Your task to perform on an android device: Empty the shopping cart on newegg. Image 0: 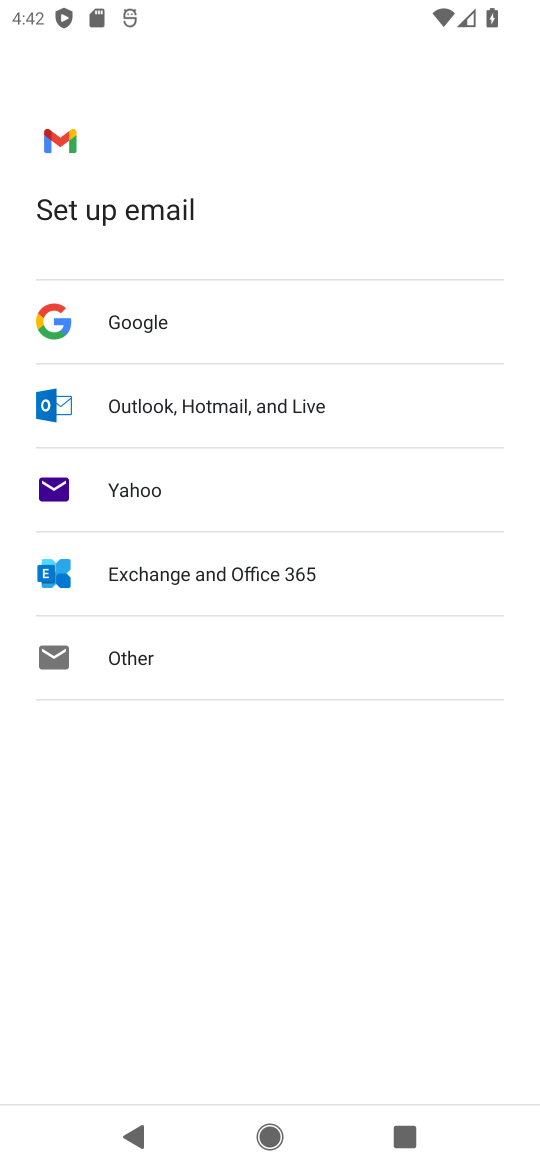
Step 0: press home button
Your task to perform on an android device: Empty the shopping cart on newegg. Image 1: 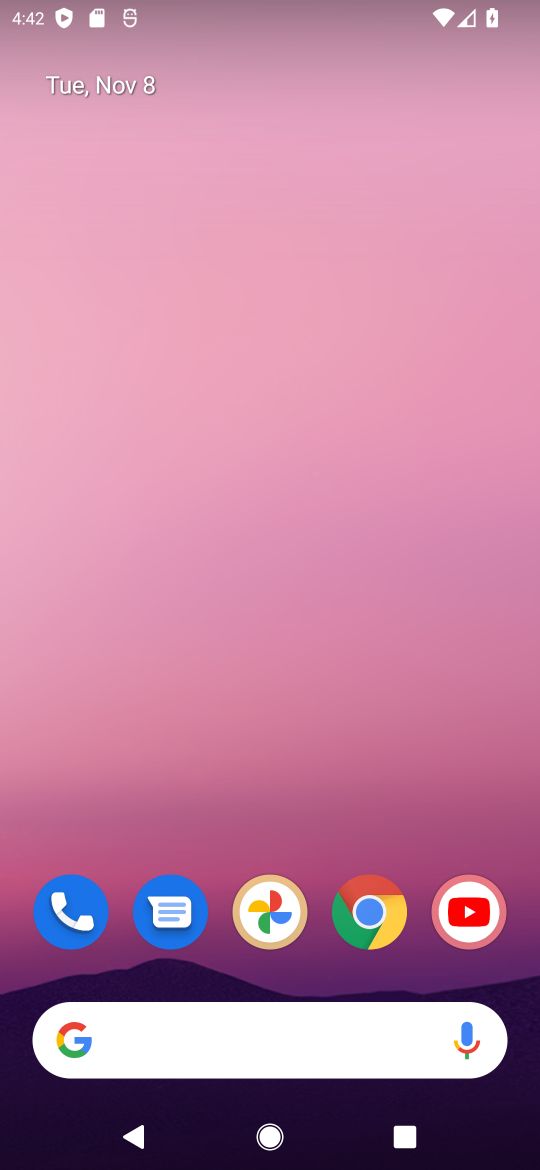
Step 1: click (378, 915)
Your task to perform on an android device: Empty the shopping cart on newegg. Image 2: 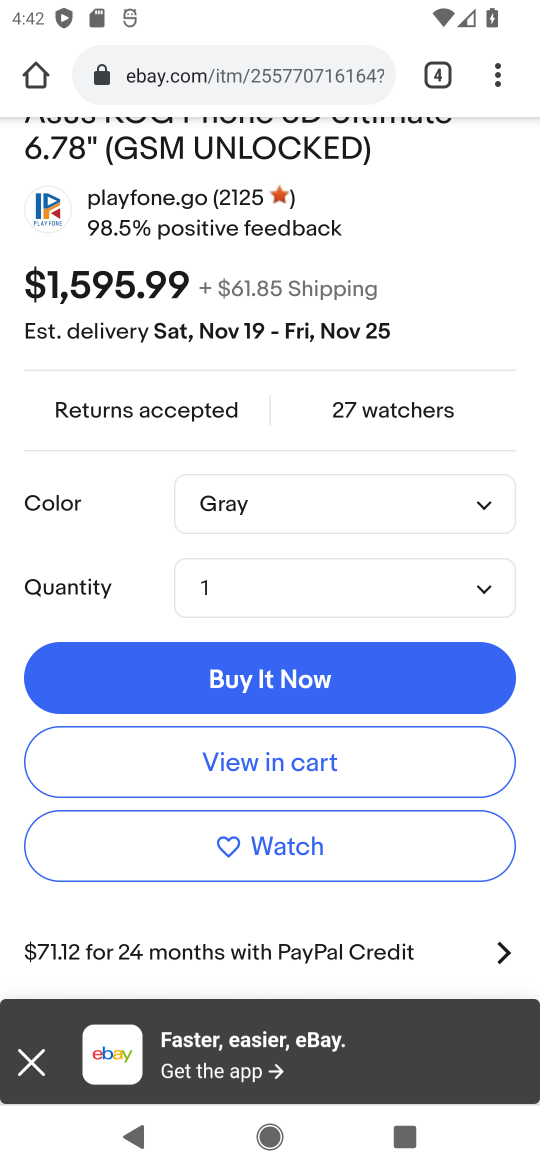
Step 2: click (447, 79)
Your task to perform on an android device: Empty the shopping cart on newegg. Image 3: 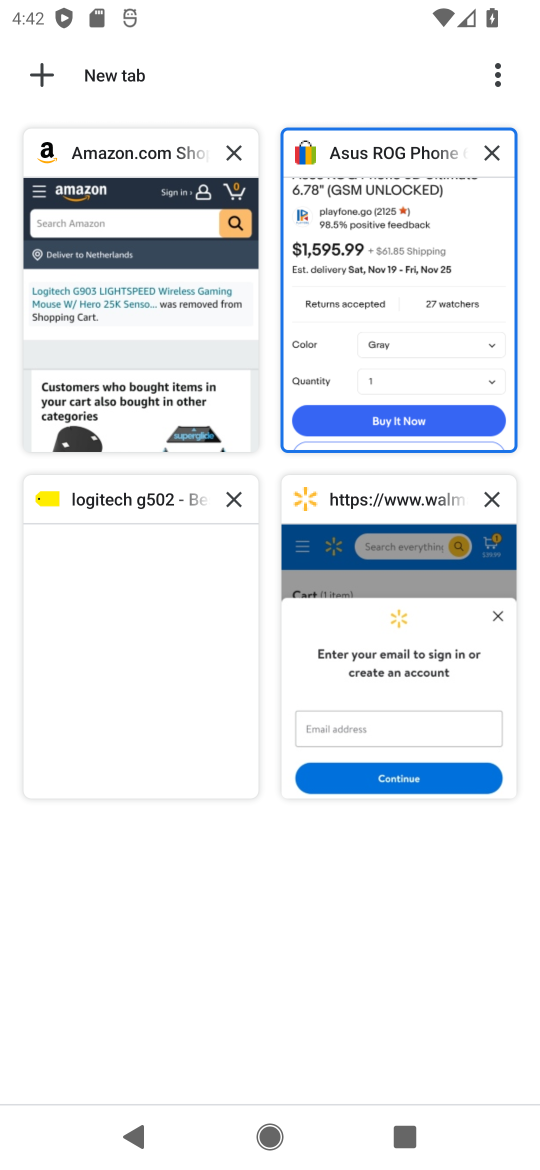
Step 3: click (31, 67)
Your task to perform on an android device: Empty the shopping cart on newegg. Image 4: 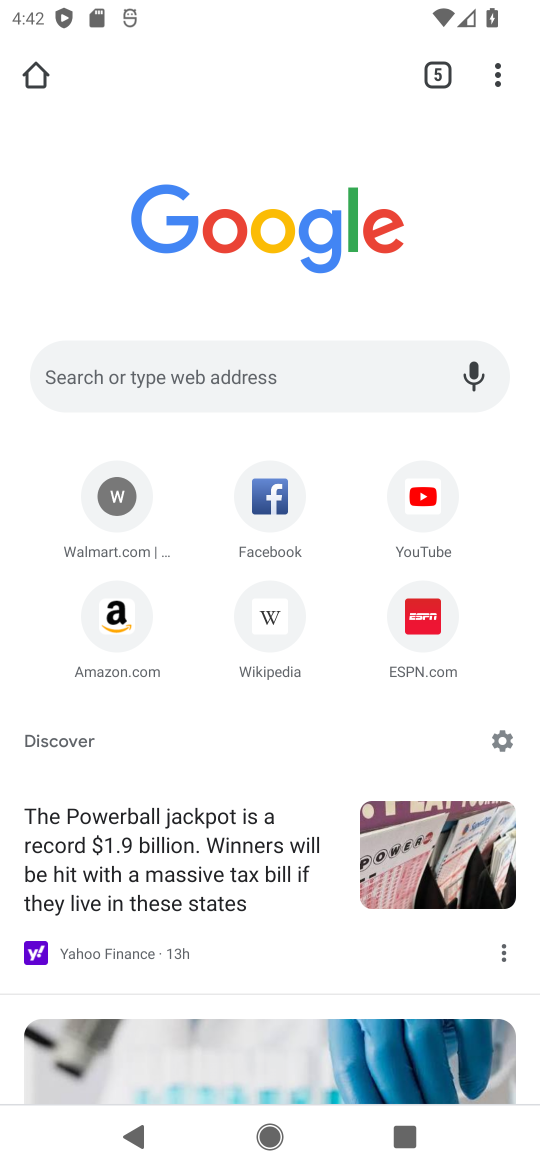
Step 4: click (239, 381)
Your task to perform on an android device: Empty the shopping cart on newegg. Image 5: 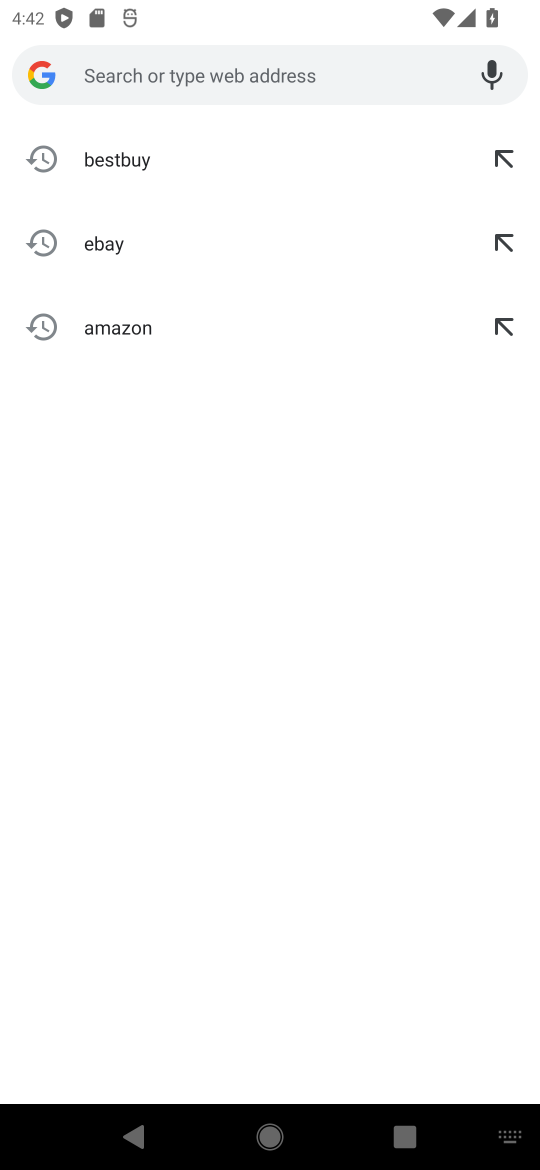
Step 5: type "newegg"
Your task to perform on an android device: Empty the shopping cart on newegg. Image 6: 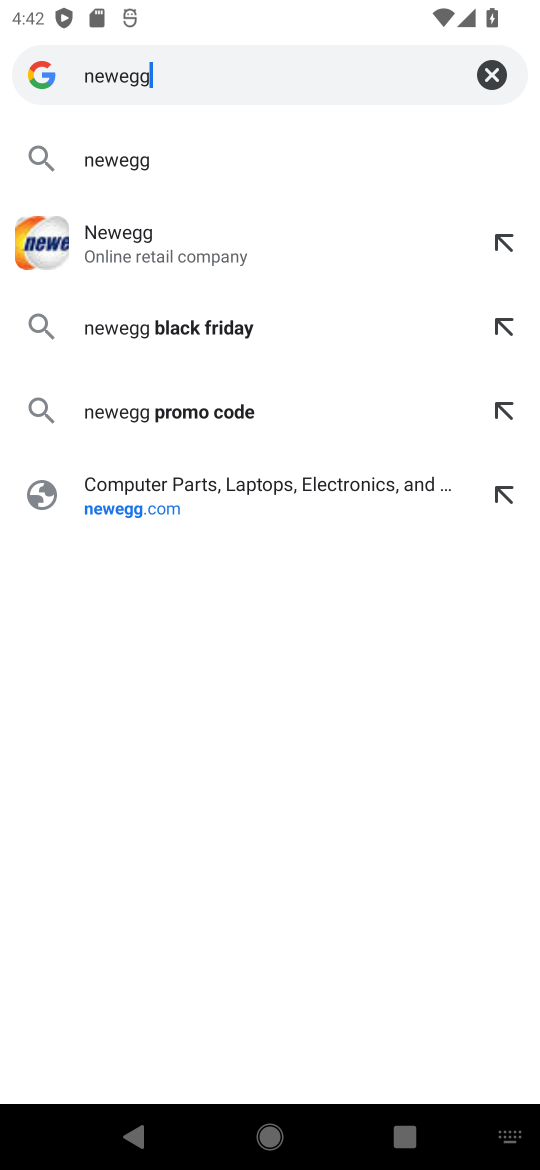
Step 6: click (145, 156)
Your task to perform on an android device: Empty the shopping cart on newegg. Image 7: 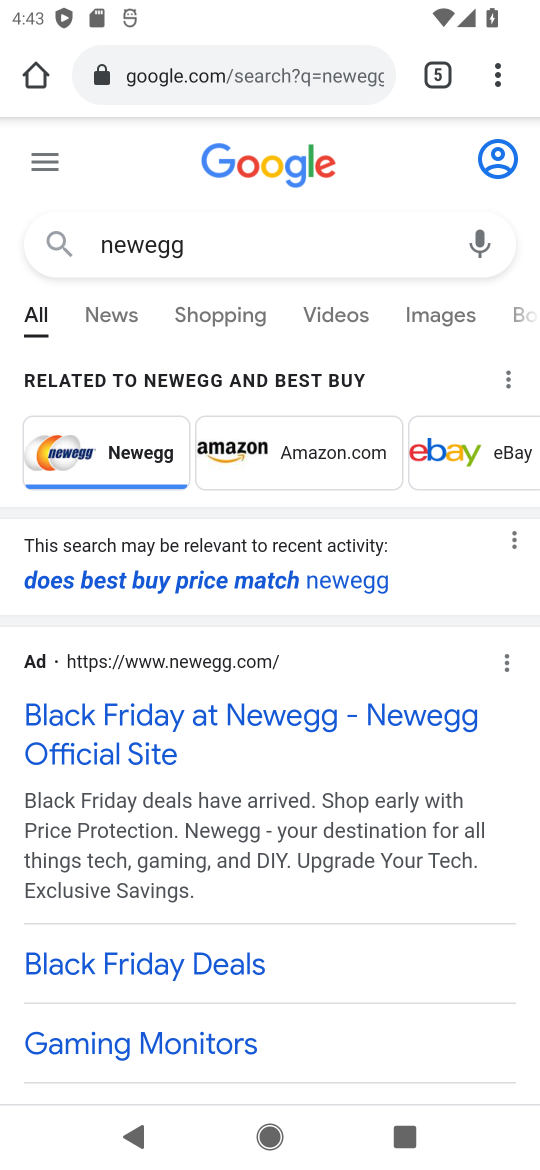
Step 7: drag from (349, 1074) to (522, 544)
Your task to perform on an android device: Empty the shopping cart on newegg. Image 8: 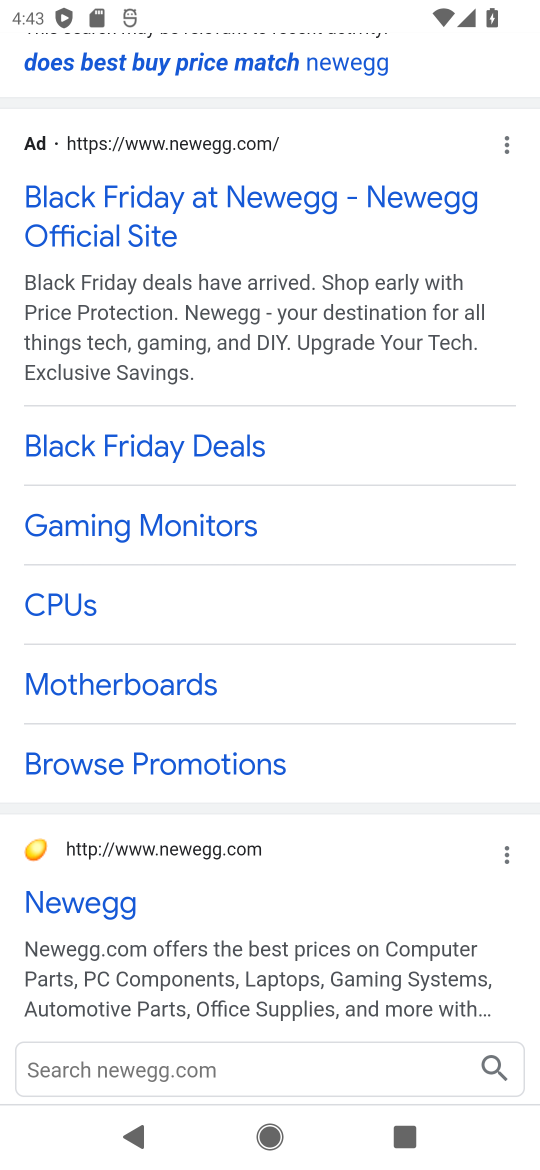
Step 8: click (113, 908)
Your task to perform on an android device: Empty the shopping cart on newegg. Image 9: 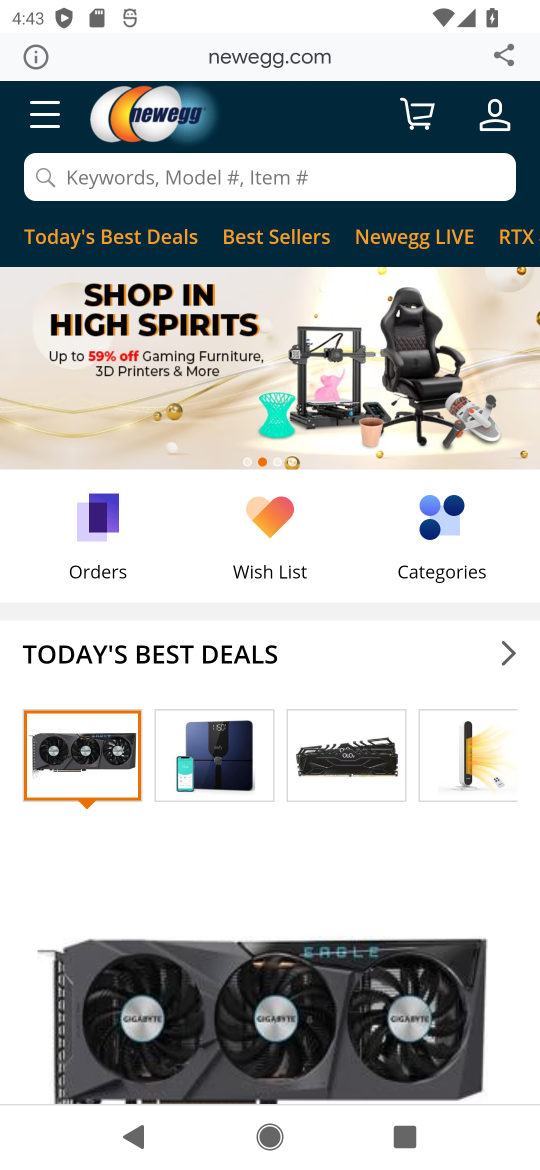
Step 9: task complete